Your task to perform on an android device: turn on improve location accuracy Image 0: 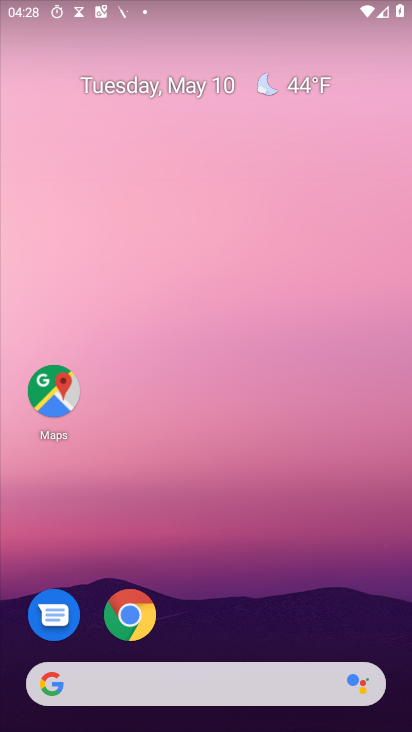
Step 0: drag from (279, 666) to (288, 60)
Your task to perform on an android device: turn on improve location accuracy Image 1: 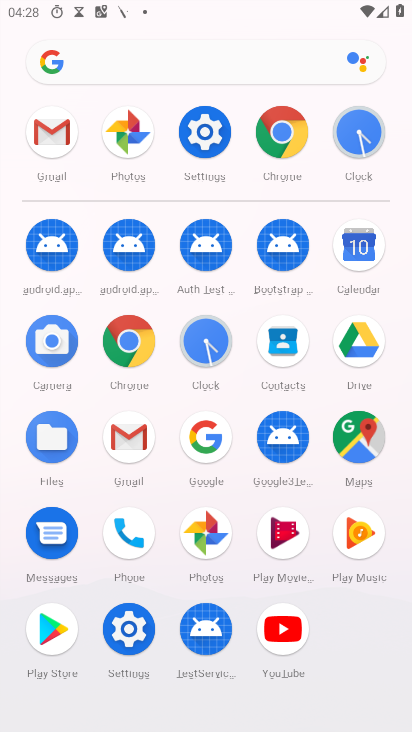
Step 1: click (209, 149)
Your task to perform on an android device: turn on improve location accuracy Image 2: 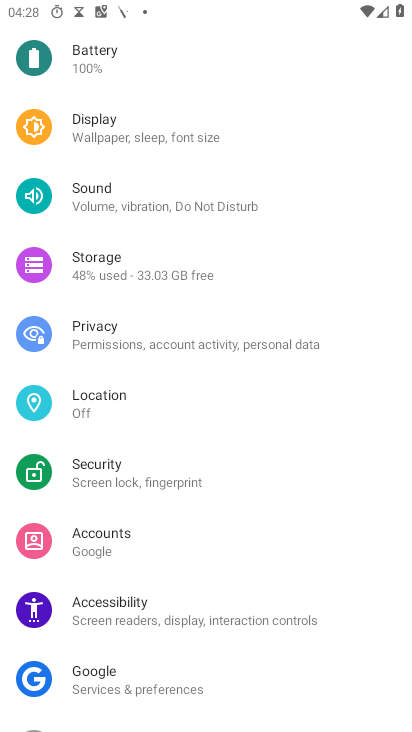
Step 2: drag from (268, 231) to (323, 633)
Your task to perform on an android device: turn on improve location accuracy Image 3: 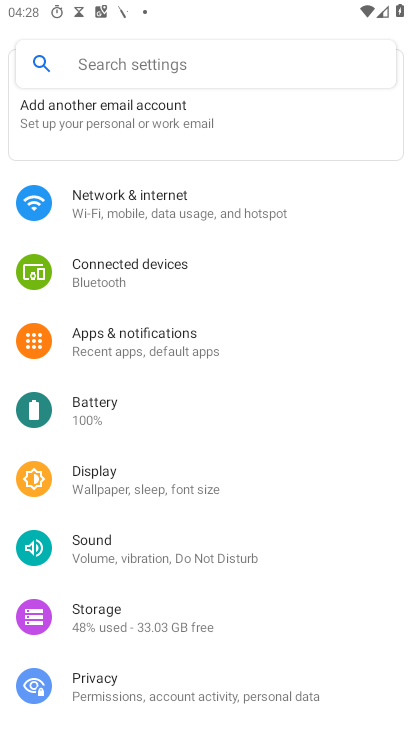
Step 3: drag from (320, 626) to (287, 156)
Your task to perform on an android device: turn on improve location accuracy Image 4: 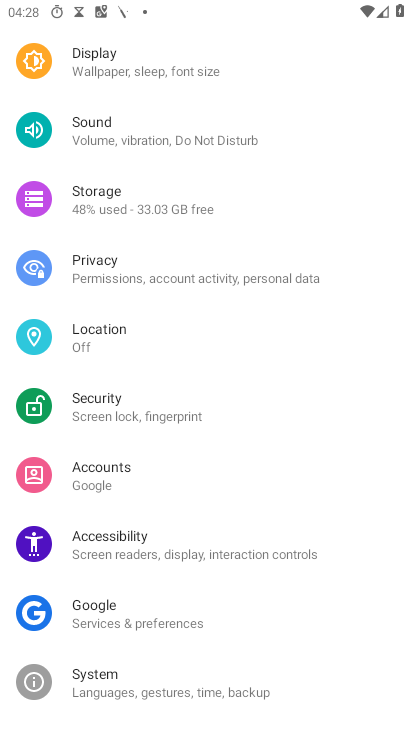
Step 4: click (140, 336)
Your task to perform on an android device: turn on improve location accuracy Image 5: 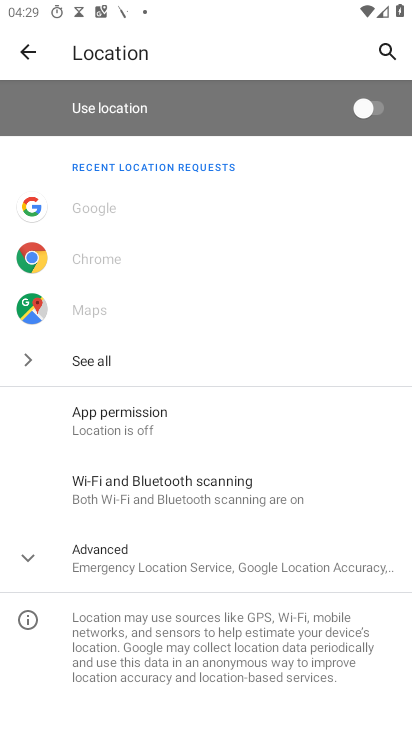
Step 5: click (256, 567)
Your task to perform on an android device: turn on improve location accuracy Image 6: 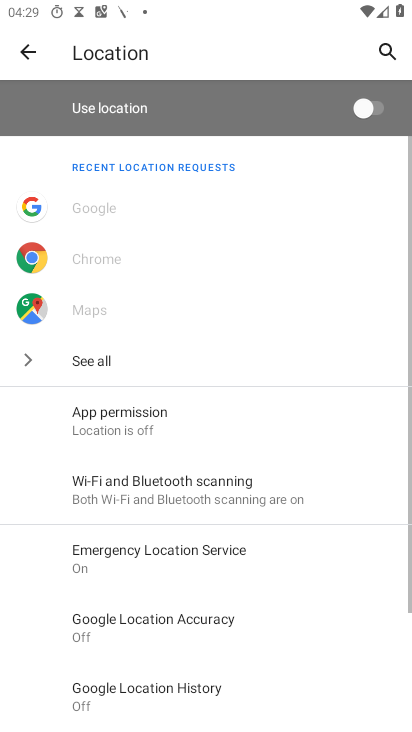
Step 6: drag from (277, 657) to (294, 380)
Your task to perform on an android device: turn on improve location accuracy Image 7: 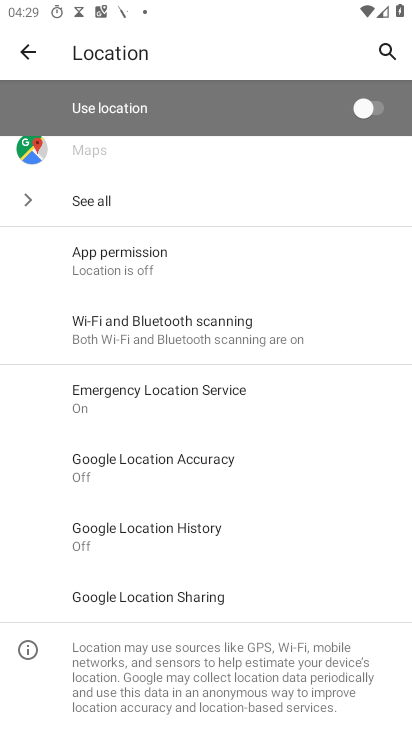
Step 7: click (205, 456)
Your task to perform on an android device: turn on improve location accuracy Image 8: 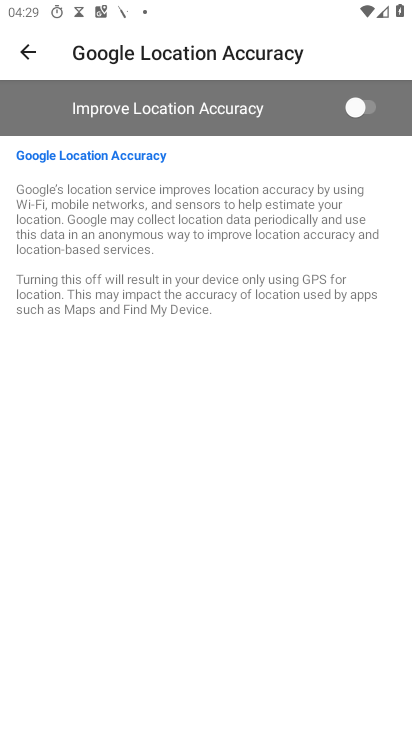
Step 8: click (366, 109)
Your task to perform on an android device: turn on improve location accuracy Image 9: 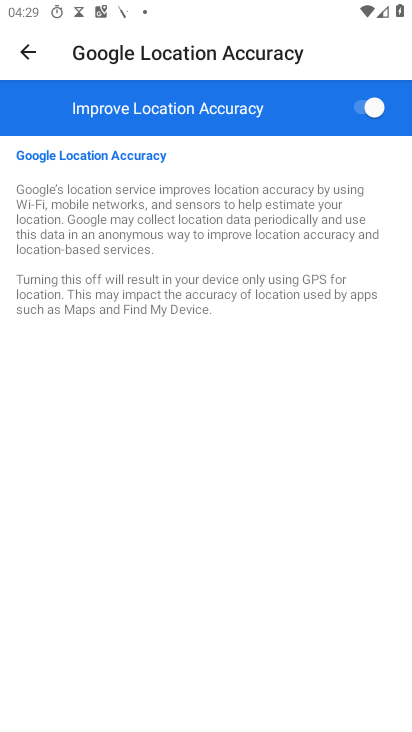
Step 9: task complete